Your task to perform on an android device: turn on javascript in the chrome app Image 0: 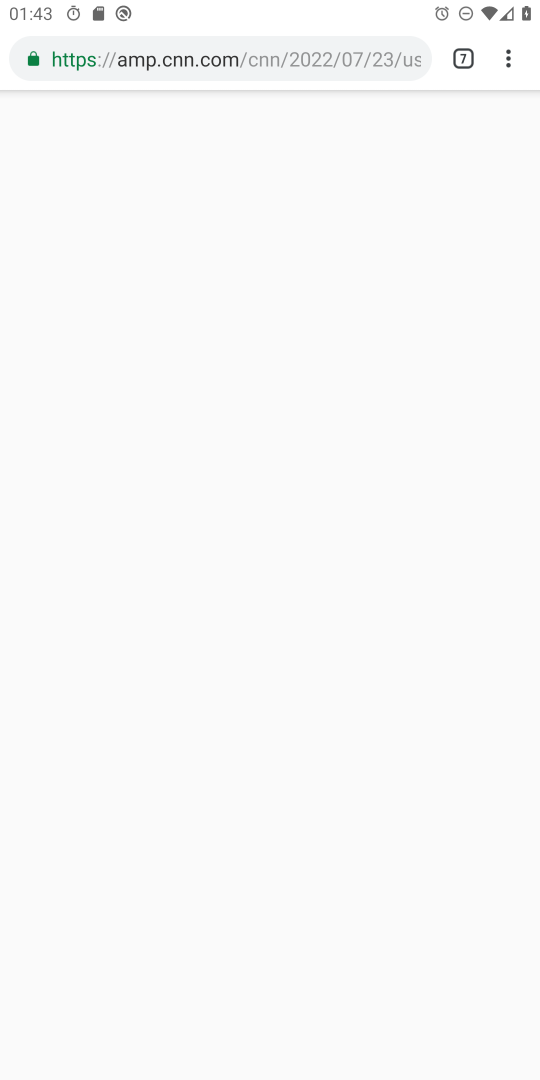
Step 0: press home button
Your task to perform on an android device: turn on javascript in the chrome app Image 1: 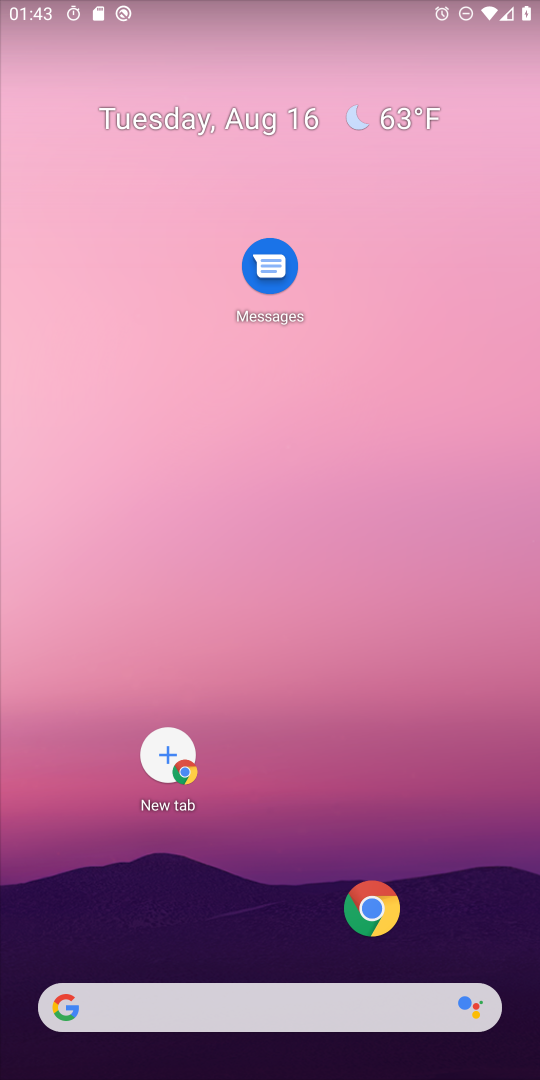
Step 1: click (370, 911)
Your task to perform on an android device: turn on javascript in the chrome app Image 2: 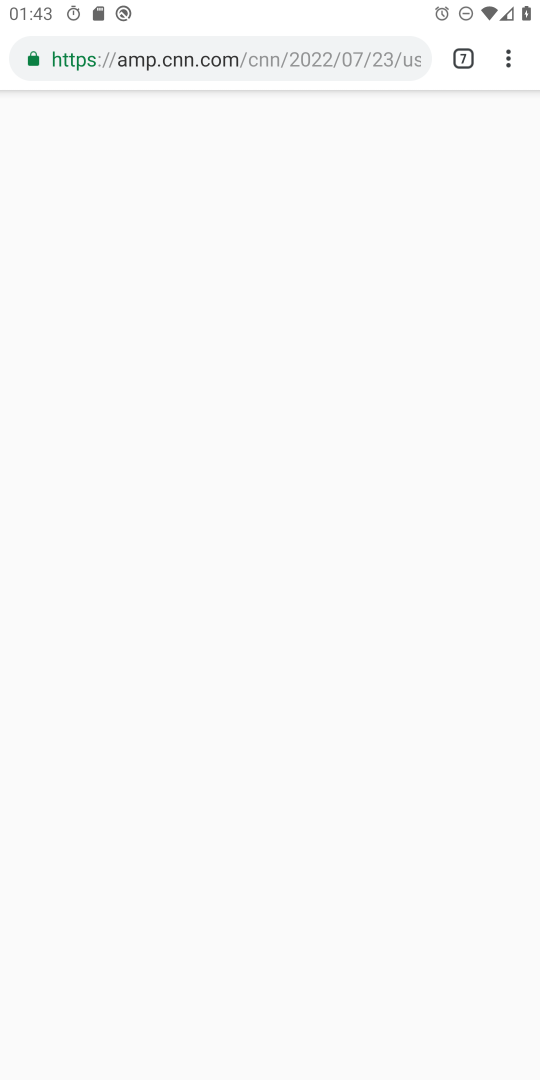
Step 2: click (519, 58)
Your task to perform on an android device: turn on javascript in the chrome app Image 3: 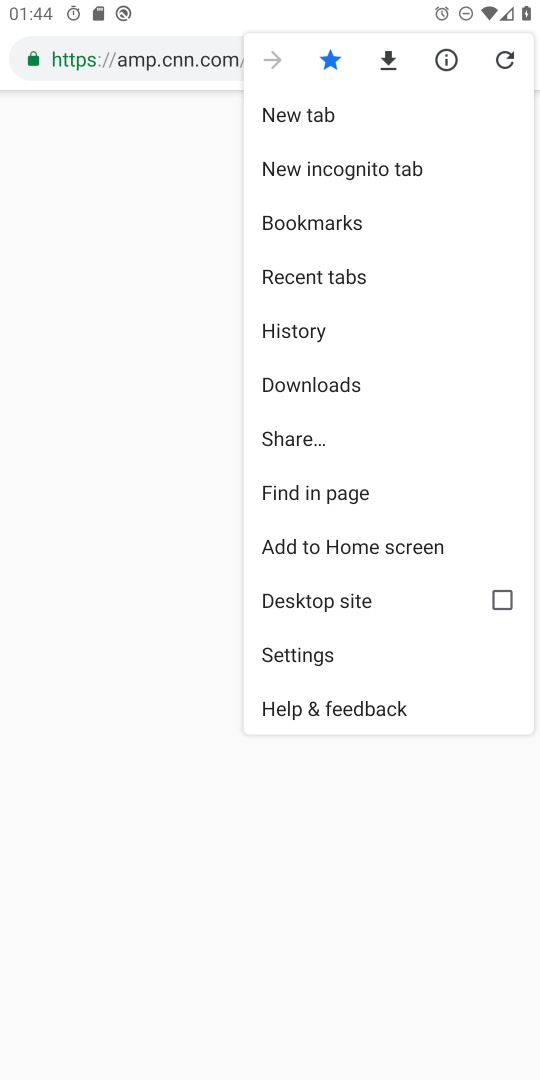
Step 3: click (321, 650)
Your task to perform on an android device: turn on javascript in the chrome app Image 4: 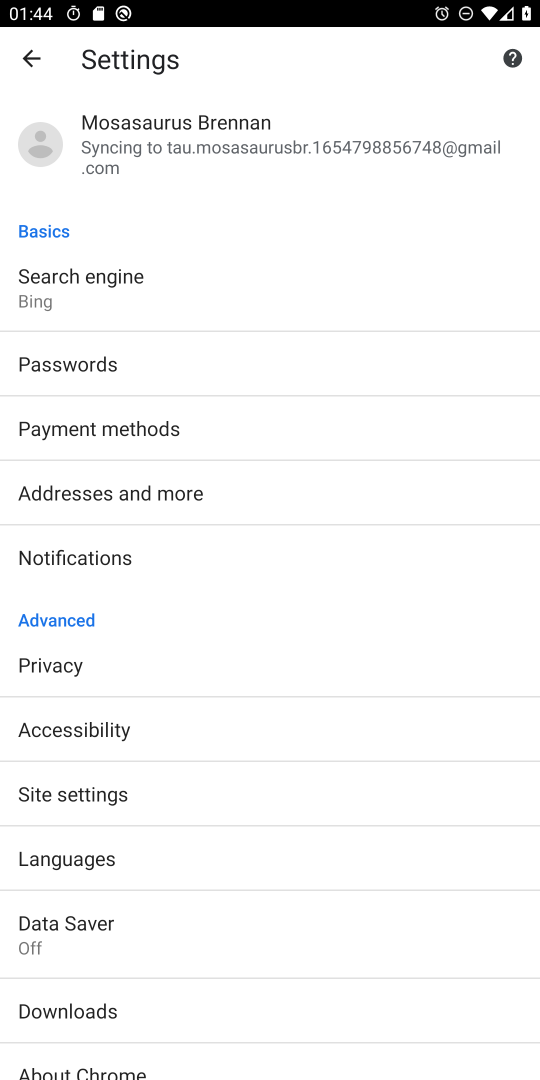
Step 4: click (109, 783)
Your task to perform on an android device: turn on javascript in the chrome app Image 5: 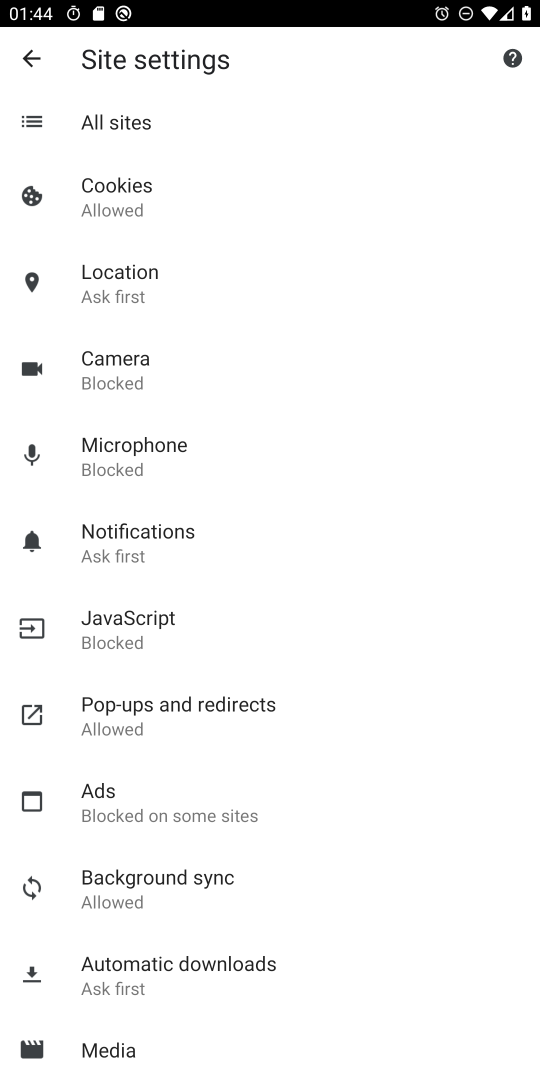
Step 5: click (163, 636)
Your task to perform on an android device: turn on javascript in the chrome app Image 6: 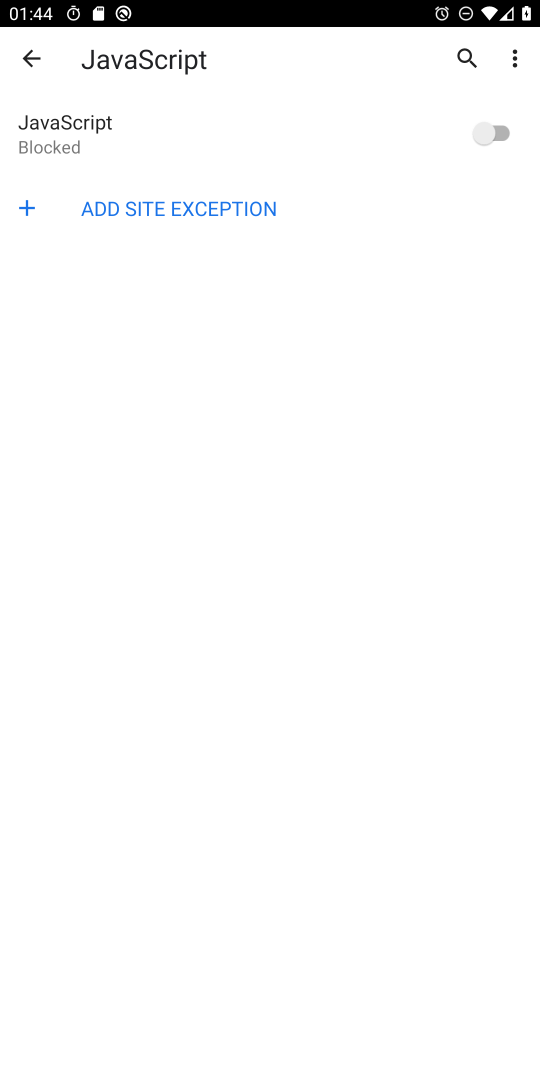
Step 6: click (505, 129)
Your task to perform on an android device: turn on javascript in the chrome app Image 7: 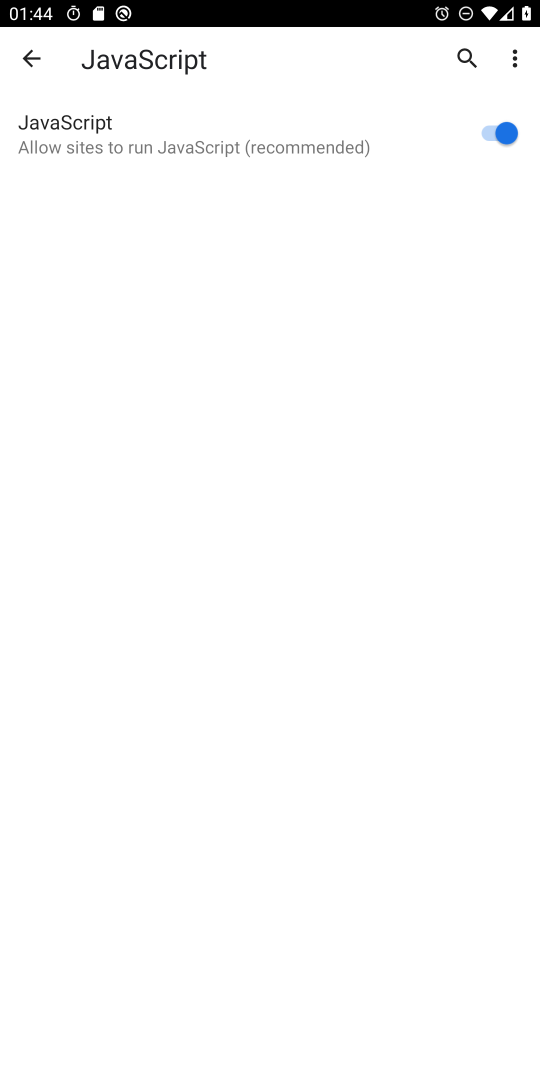
Step 7: task complete